Your task to perform on an android device: toggle wifi Image 0: 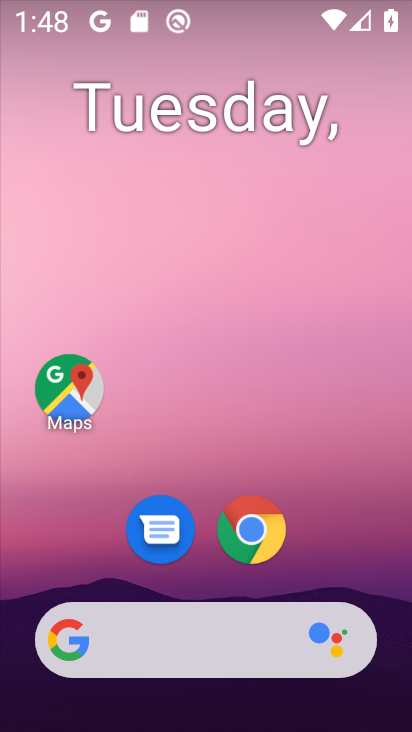
Step 0: drag from (367, 405) to (329, 169)
Your task to perform on an android device: toggle wifi Image 1: 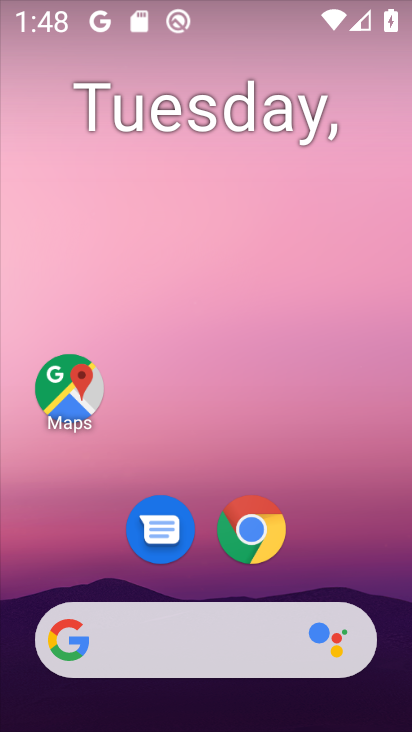
Step 1: drag from (367, 374) to (359, 138)
Your task to perform on an android device: toggle wifi Image 2: 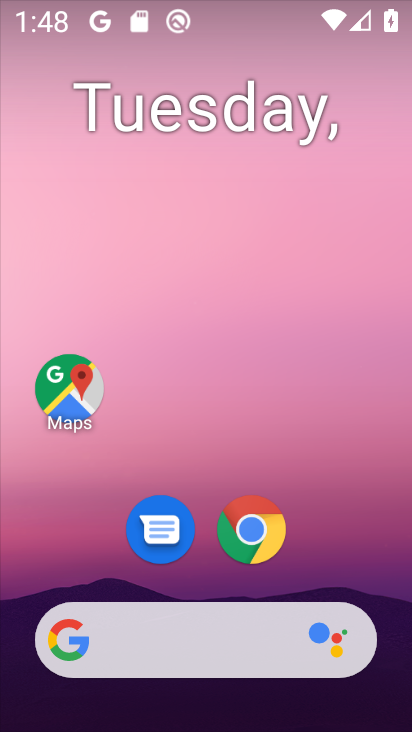
Step 2: click (345, 130)
Your task to perform on an android device: toggle wifi Image 3: 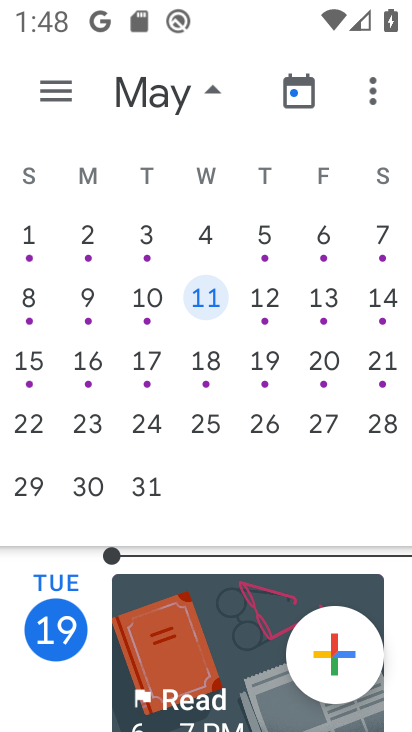
Step 3: drag from (386, 428) to (357, 39)
Your task to perform on an android device: toggle wifi Image 4: 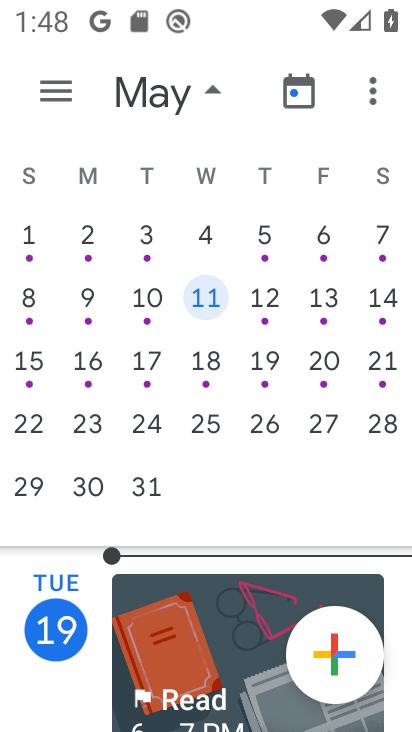
Step 4: click (374, 253)
Your task to perform on an android device: toggle wifi Image 5: 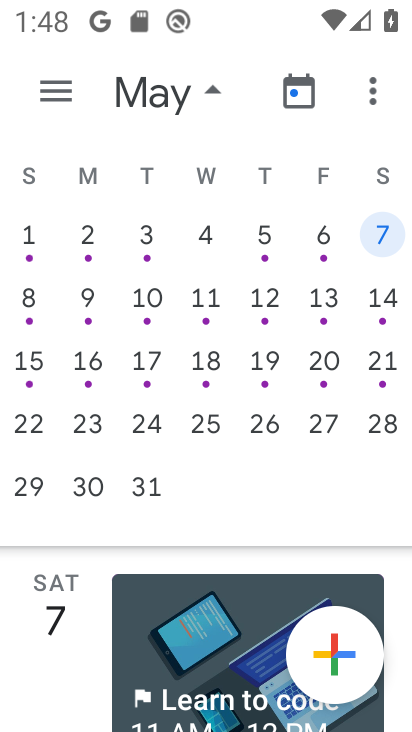
Step 5: drag from (7, 329) to (370, 327)
Your task to perform on an android device: toggle wifi Image 6: 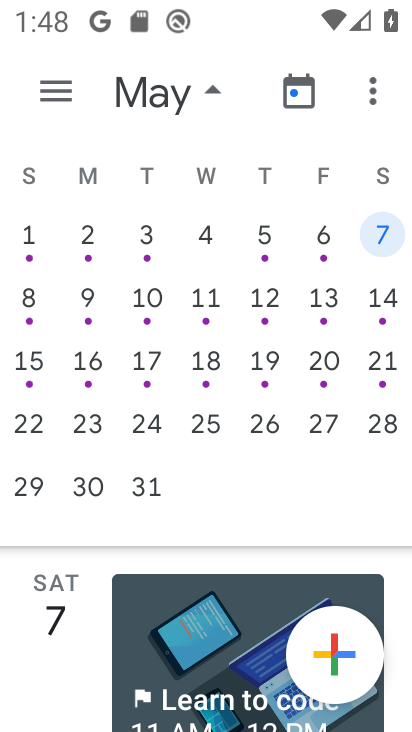
Step 6: drag from (15, 329) to (409, 355)
Your task to perform on an android device: toggle wifi Image 7: 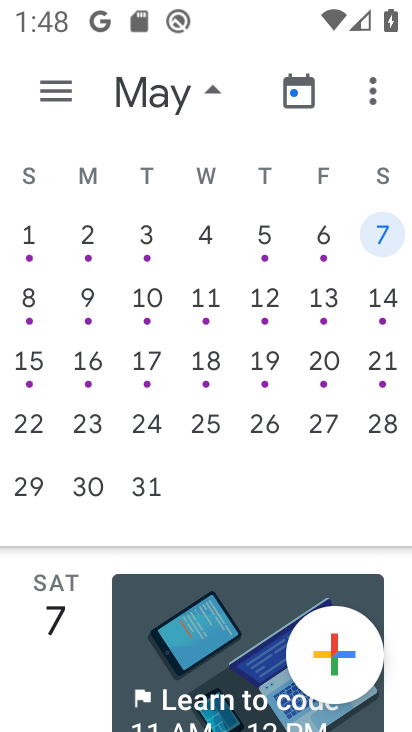
Step 7: drag from (10, 327) to (373, 341)
Your task to perform on an android device: toggle wifi Image 8: 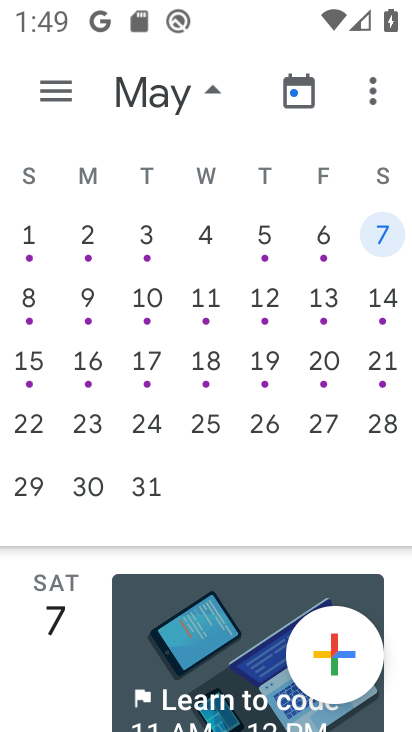
Step 8: drag from (189, 326) to (366, 319)
Your task to perform on an android device: toggle wifi Image 9: 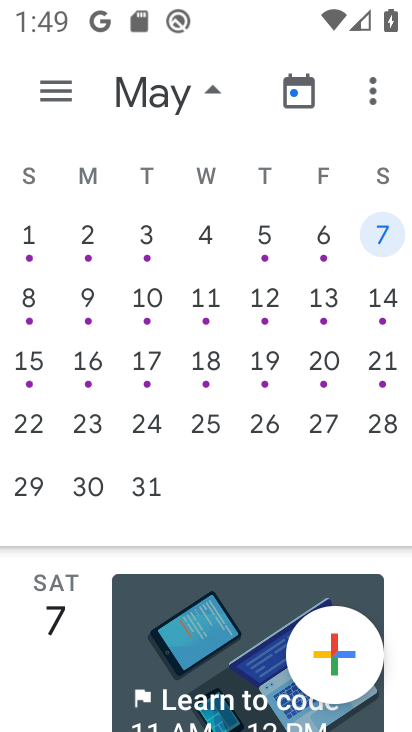
Step 9: drag from (30, 326) to (386, 337)
Your task to perform on an android device: toggle wifi Image 10: 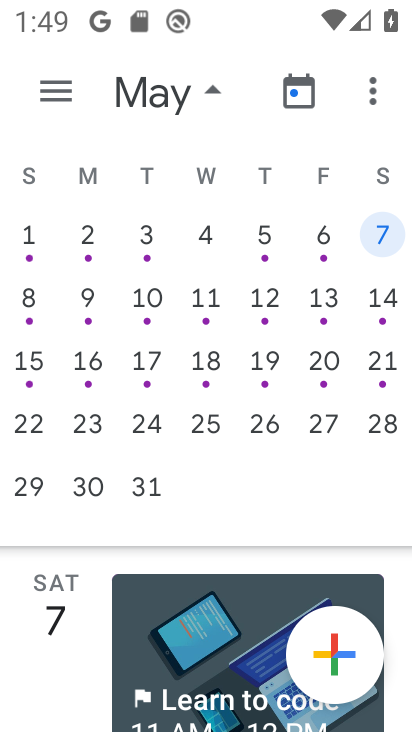
Step 10: press home button
Your task to perform on an android device: toggle wifi Image 11: 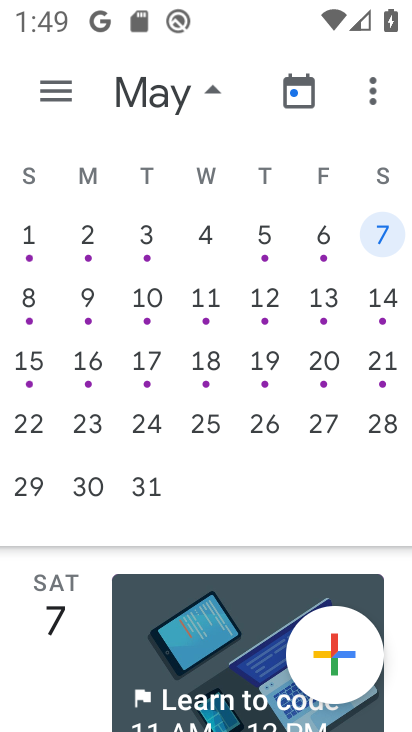
Step 11: drag from (386, 337) to (390, 372)
Your task to perform on an android device: toggle wifi Image 12: 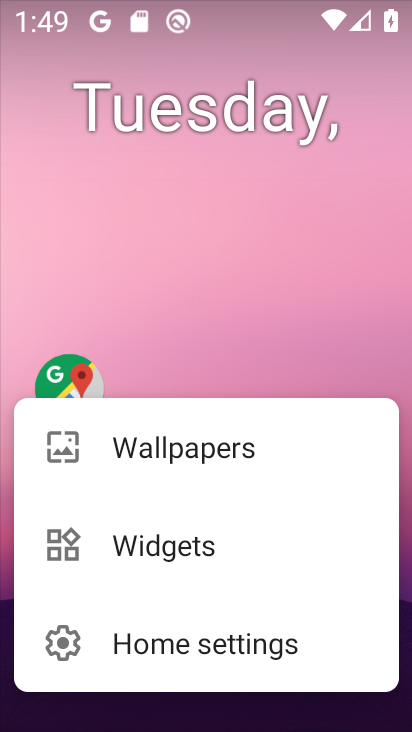
Step 12: click (317, 288)
Your task to perform on an android device: toggle wifi Image 13: 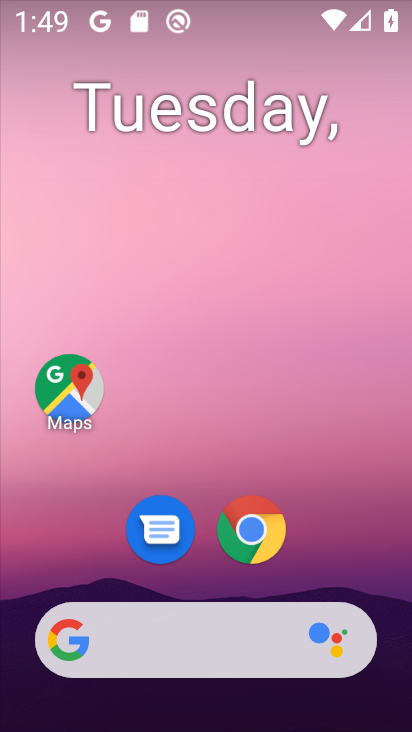
Step 13: drag from (378, 576) to (327, 175)
Your task to perform on an android device: toggle wifi Image 14: 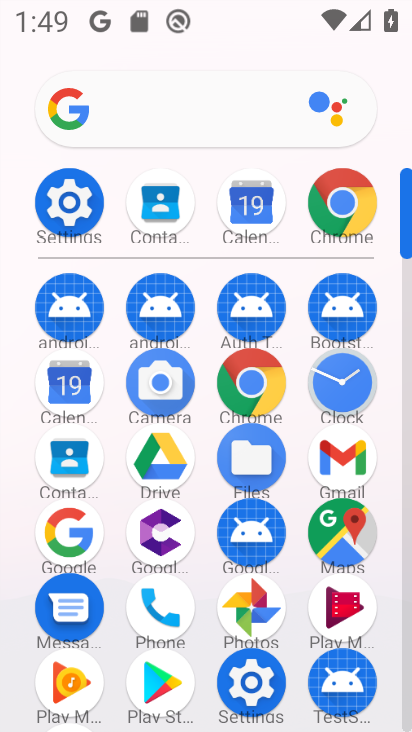
Step 14: click (80, 194)
Your task to perform on an android device: toggle wifi Image 15: 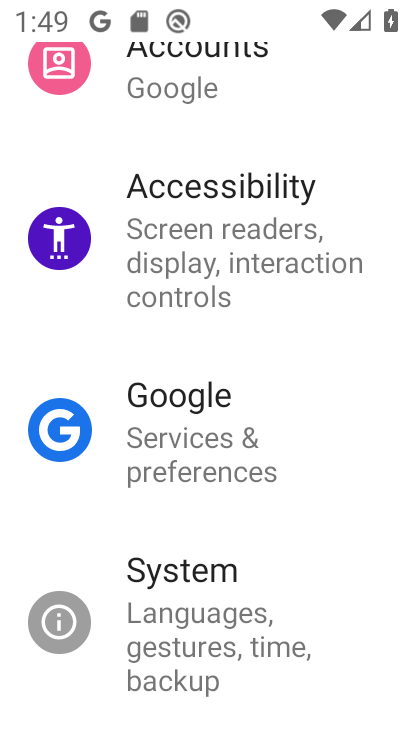
Step 15: drag from (356, 115) to (411, 511)
Your task to perform on an android device: toggle wifi Image 16: 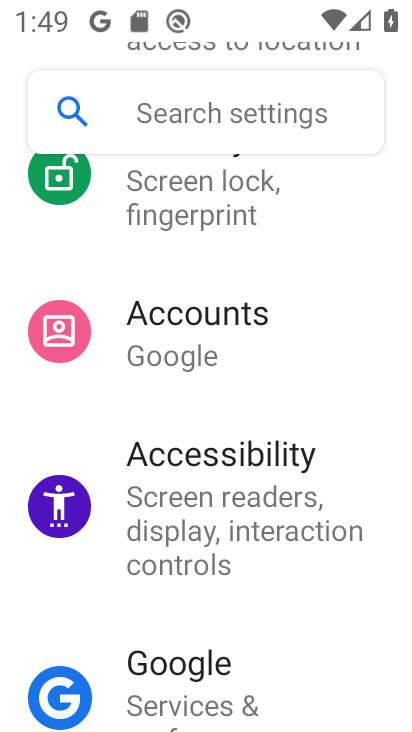
Step 16: drag from (401, 516) to (394, 191)
Your task to perform on an android device: toggle wifi Image 17: 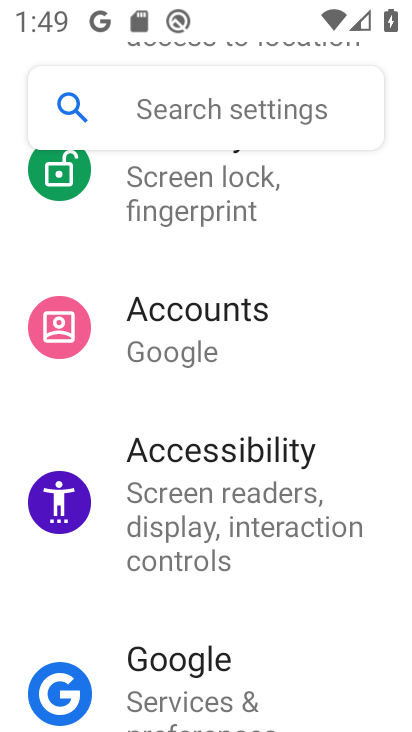
Step 17: drag from (405, 539) to (390, 181)
Your task to perform on an android device: toggle wifi Image 18: 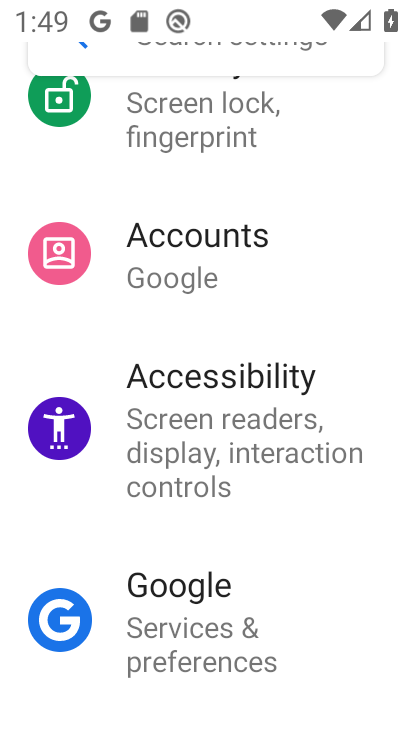
Step 18: drag from (409, 459) to (389, 62)
Your task to perform on an android device: toggle wifi Image 19: 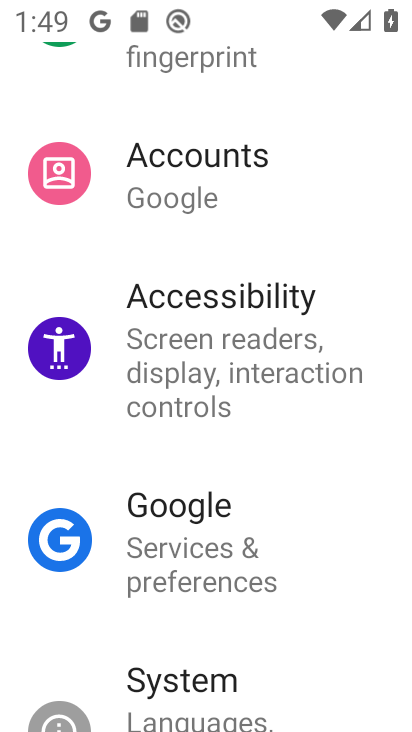
Step 19: drag from (406, 430) to (410, 191)
Your task to perform on an android device: toggle wifi Image 20: 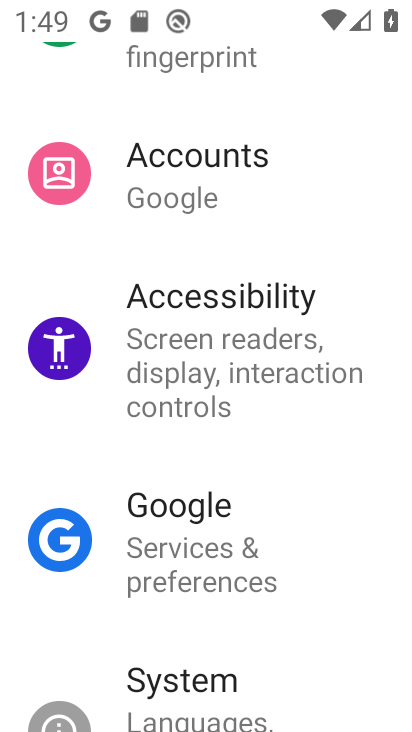
Step 20: drag from (409, 113) to (408, 329)
Your task to perform on an android device: toggle wifi Image 21: 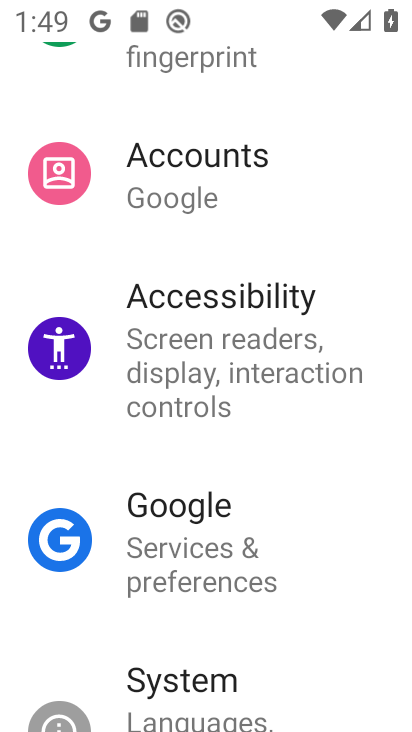
Step 21: drag from (402, 255) to (391, 649)
Your task to perform on an android device: toggle wifi Image 22: 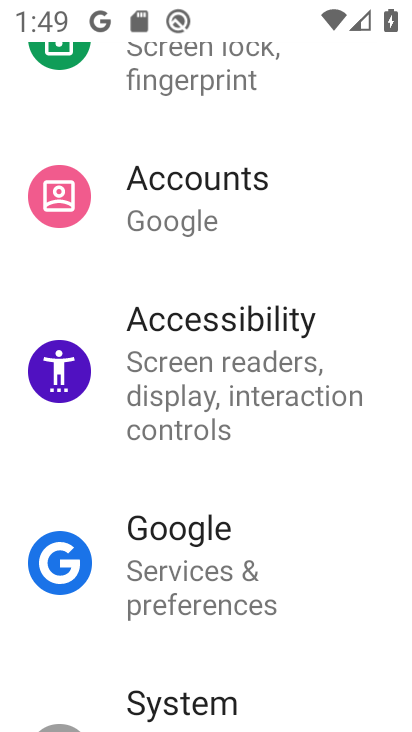
Step 22: drag from (408, 215) to (406, 340)
Your task to perform on an android device: toggle wifi Image 23: 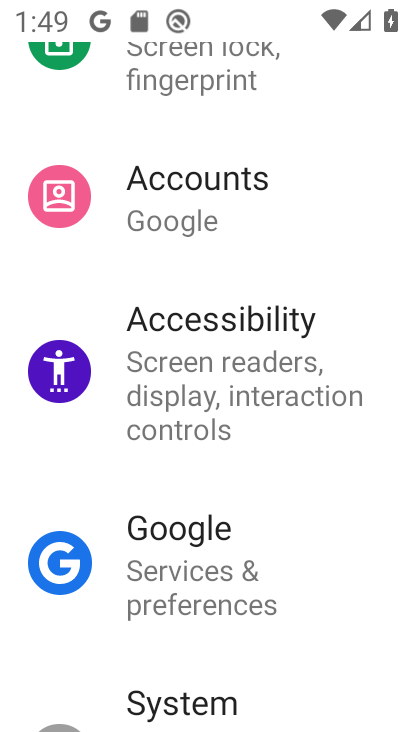
Step 23: drag from (389, 414) to (389, 568)
Your task to perform on an android device: toggle wifi Image 24: 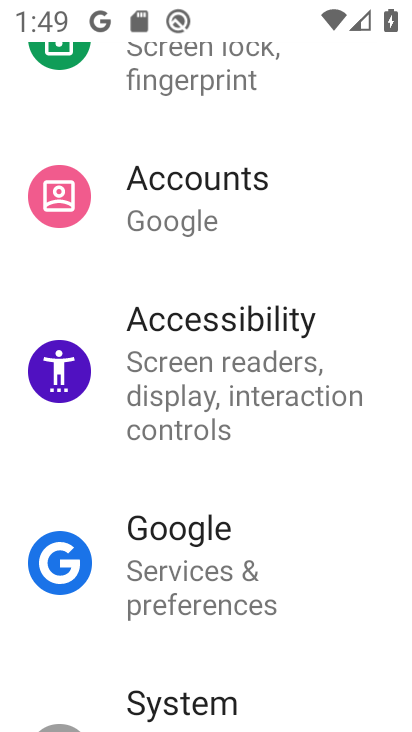
Step 24: drag from (410, 293) to (410, 639)
Your task to perform on an android device: toggle wifi Image 25: 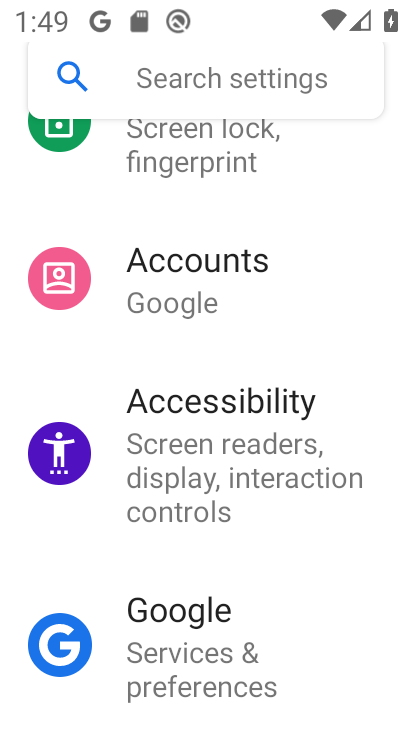
Step 25: drag from (399, 187) to (410, 647)
Your task to perform on an android device: toggle wifi Image 26: 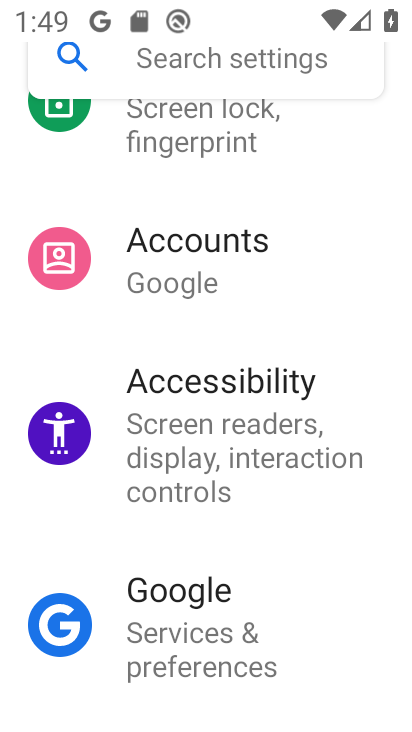
Step 26: click (395, 545)
Your task to perform on an android device: toggle wifi Image 27: 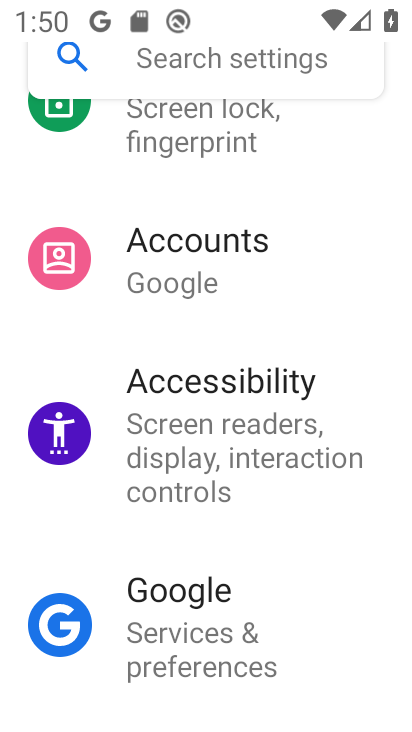
Step 27: drag from (399, 183) to (411, 517)
Your task to perform on an android device: toggle wifi Image 28: 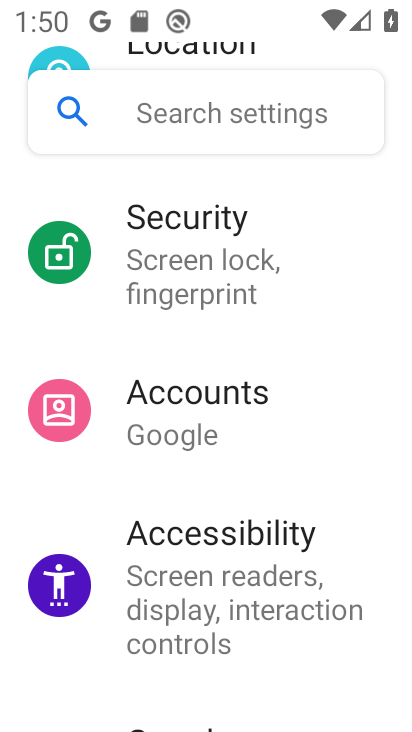
Step 28: drag from (399, 412) to (381, 167)
Your task to perform on an android device: toggle wifi Image 29: 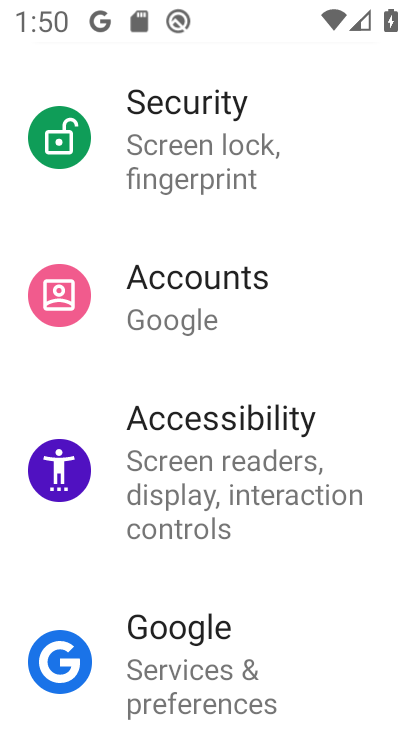
Step 29: drag from (402, 131) to (388, 460)
Your task to perform on an android device: toggle wifi Image 30: 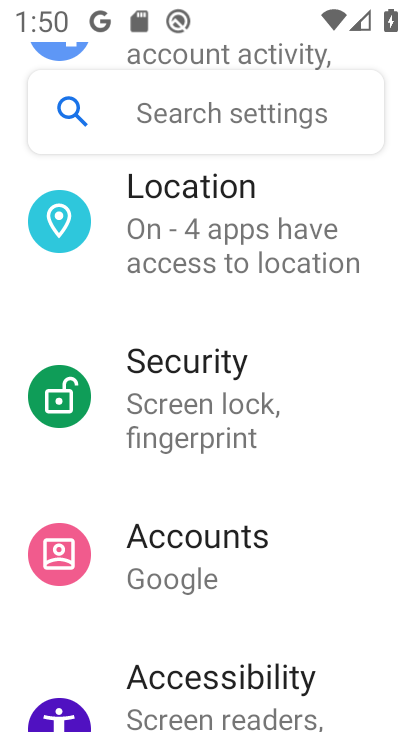
Step 30: drag from (404, 162) to (410, 428)
Your task to perform on an android device: toggle wifi Image 31: 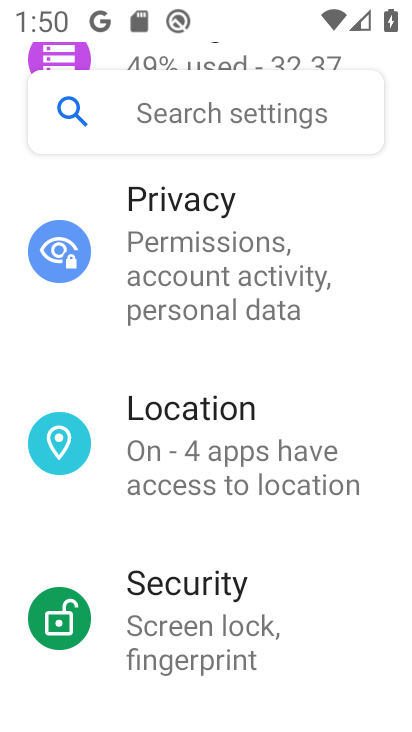
Step 31: drag from (411, 357) to (410, 440)
Your task to perform on an android device: toggle wifi Image 32: 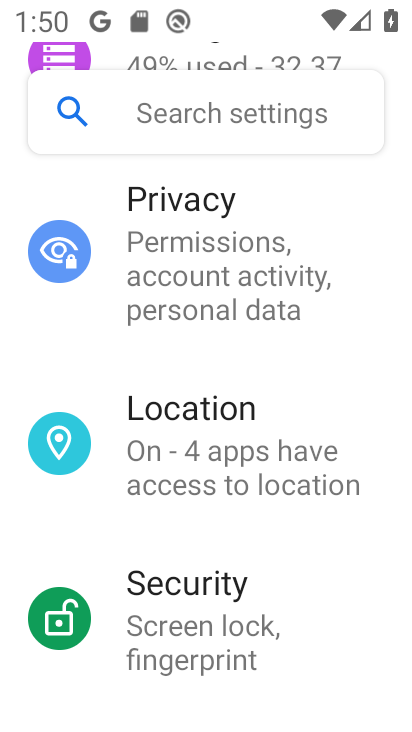
Step 32: drag from (394, 180) to (389, 652)
Your task to perform on an android device: toggle wifi Image 33: 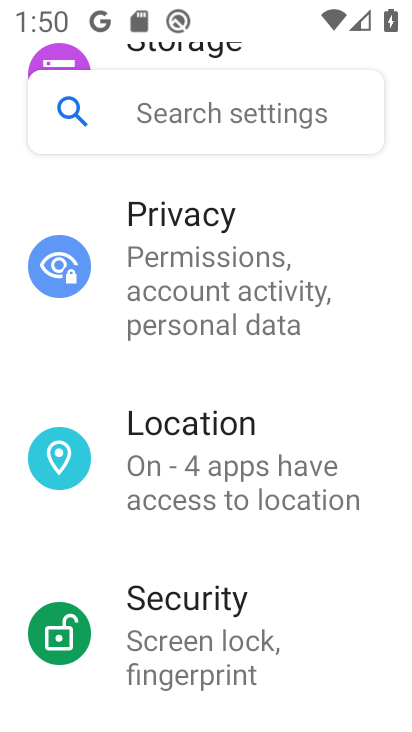
Step 33: drag from (393, 279) to (386, 575)
Your task to perform on an android device: toggle wifi Image 34: 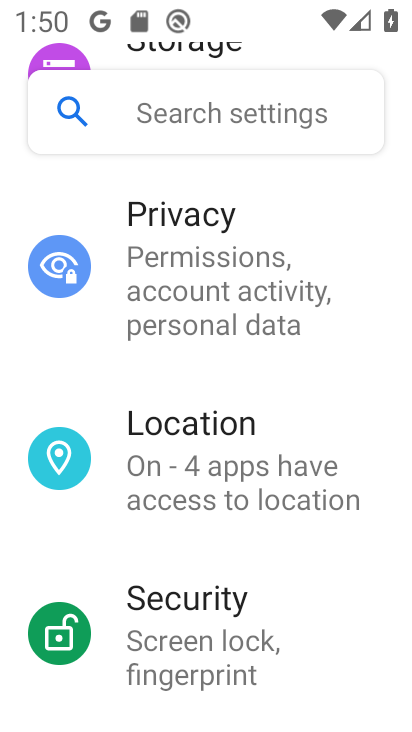
Step 34: drag from (395, 171) to (406, 591)
Your task to perform on an android device: toggle wifi Image 35: 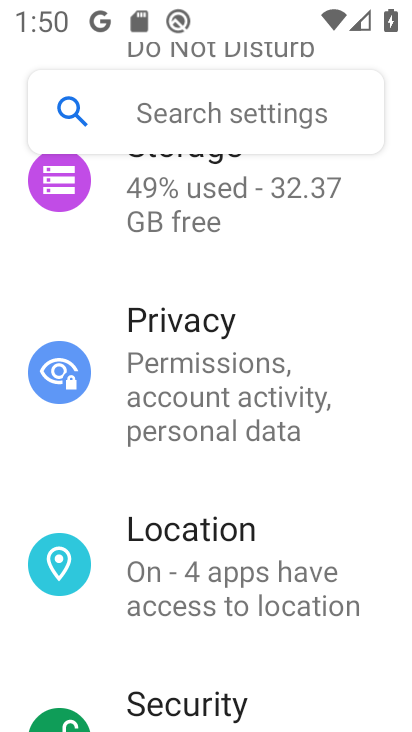
Step 35: drag from (410, 348) to (409, 183)
Your task to perform on an android device: toggle wifi Image 36: 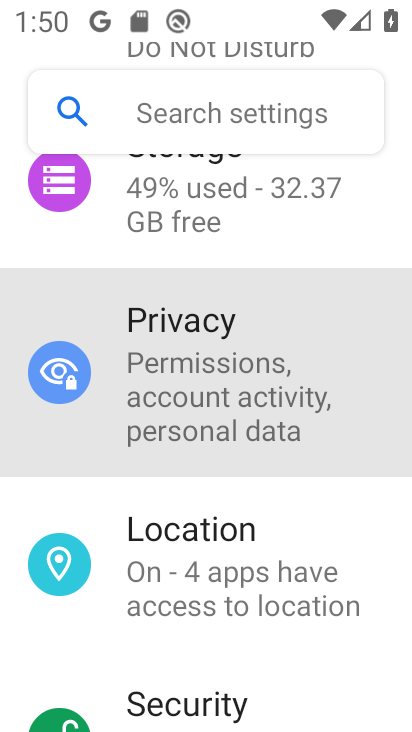
Step 36: drag from (407, 194) to (404, 402)
Your task to perform on an android device: toggle wifi Image 37: 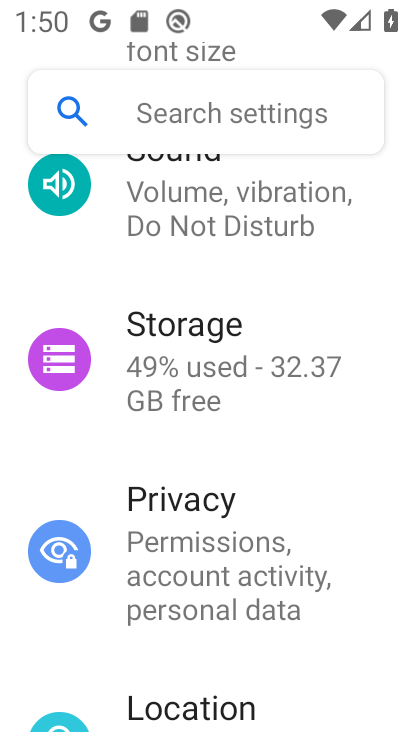
Step 37: drag from (404, 122) to (409, 524)
Your task to perform on an android device: toggle wifi Image 38: 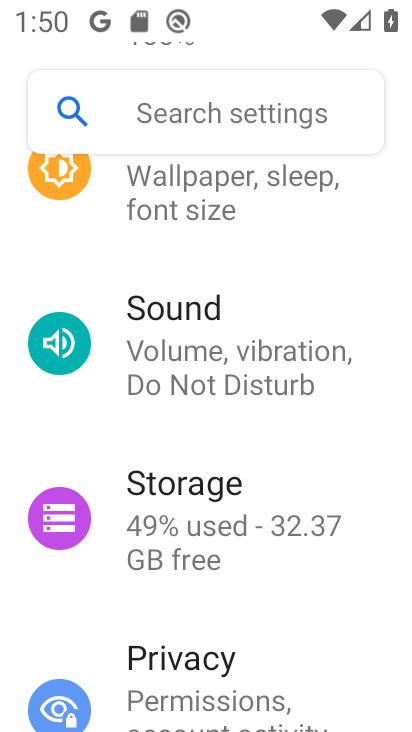
Step 38: drag from (402, 343) to (391, 546)
Your task to perform on an android device: toggle wifi Image 39: 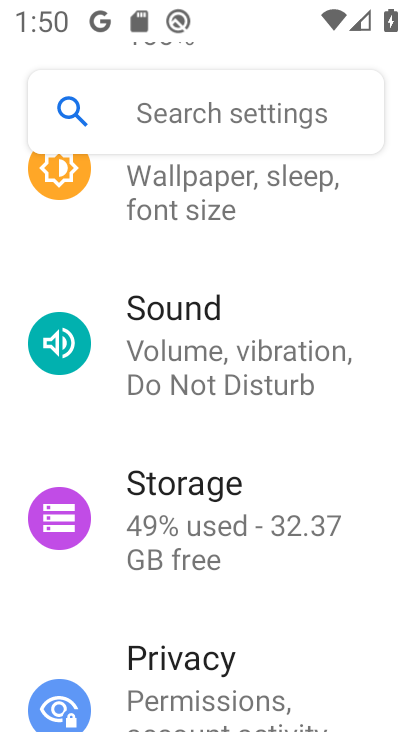
Step 39: drag from (403, 144) to (409, 336)
Your task to perform on an android device: toggle wifi Image 40: 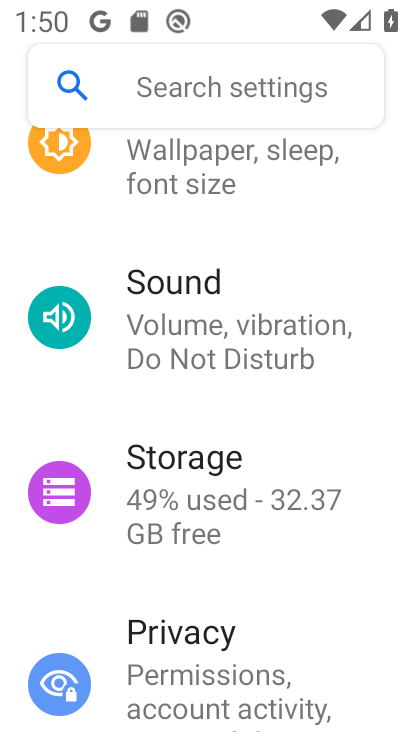
Step 40: drag from (401, 138) to (410, 392)
Your task to perform on an android device: toggle wifi Image 41: 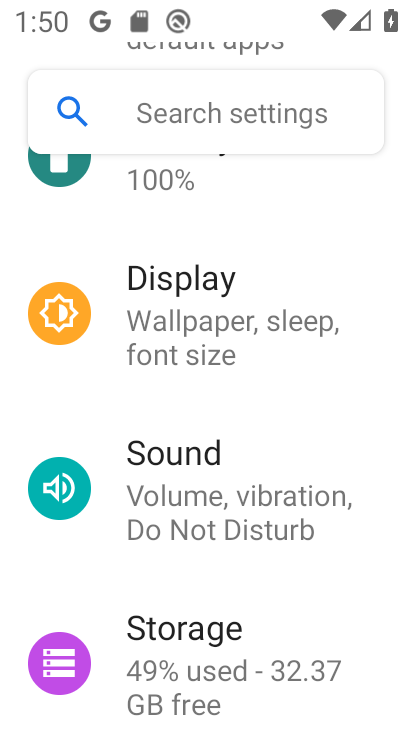
Step 41: drag from (401, 168) to (407, 554)
Your task to perform on an android device: toggle wifi Image 42: 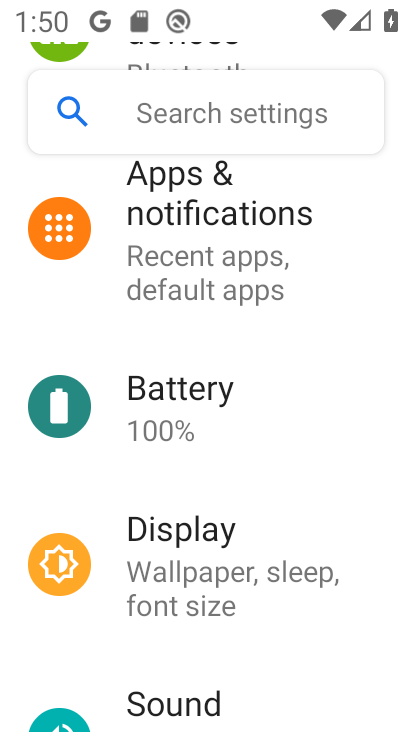
Step 42: drag from (408, 187) to (410, 580)
Your task to perform on an android device: toggle wifi Image 43: 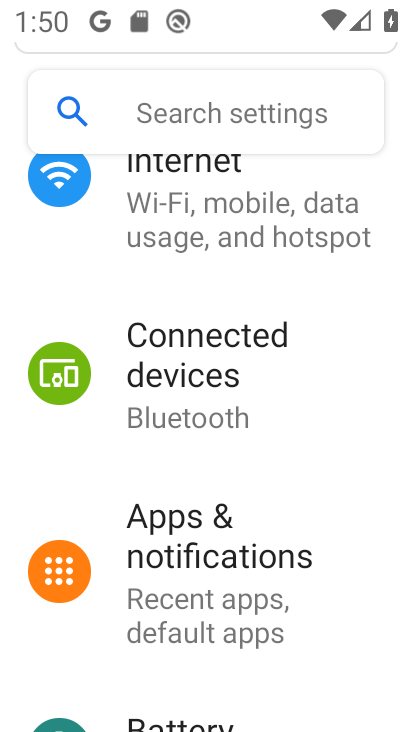
Step 43: drag from (402, 311) to (409, 660)
Your task to perform on an android device: toggle wifi Image 44: 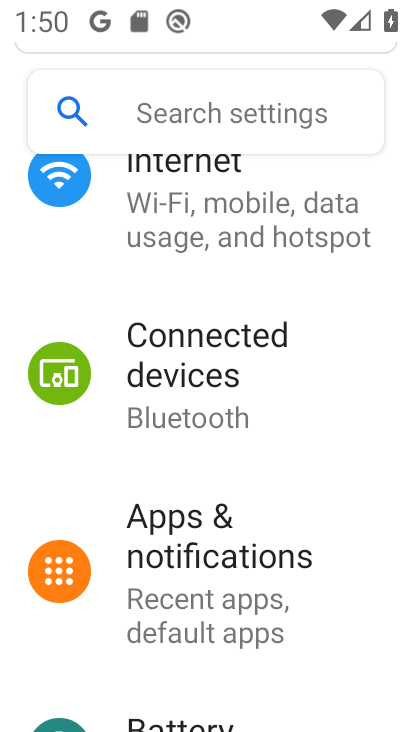
Step 44: click (231, 211)
Your task to perform on an android device: toggle wifi Image 45: 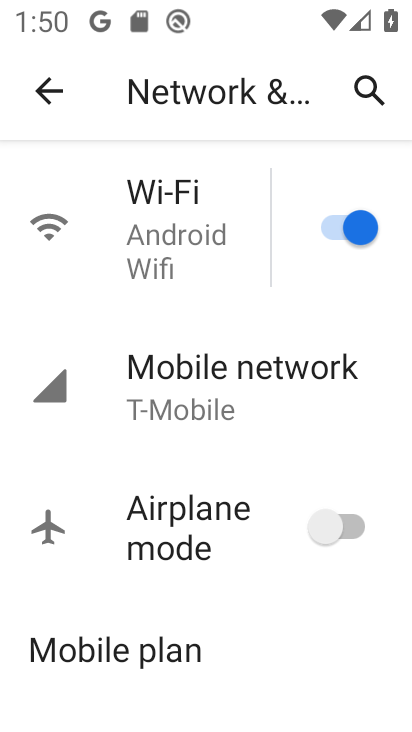
Step 45: click (332, 229)
Your task to perform on an android device: toggle wifi Image 46: 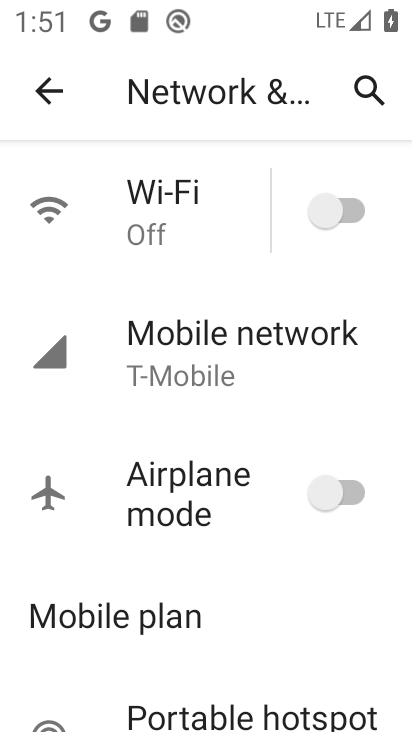
Step 46: task complete